Your task to perform on an android device: Check the news Image 0: 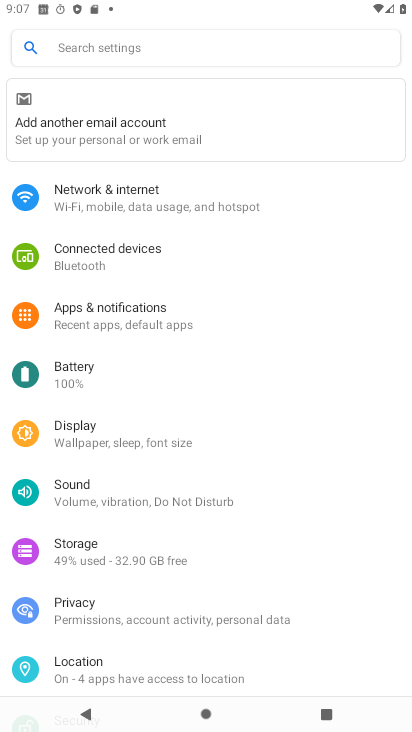
Step 0: press home button
Your task to perform on an android device: Check the news Image 1: 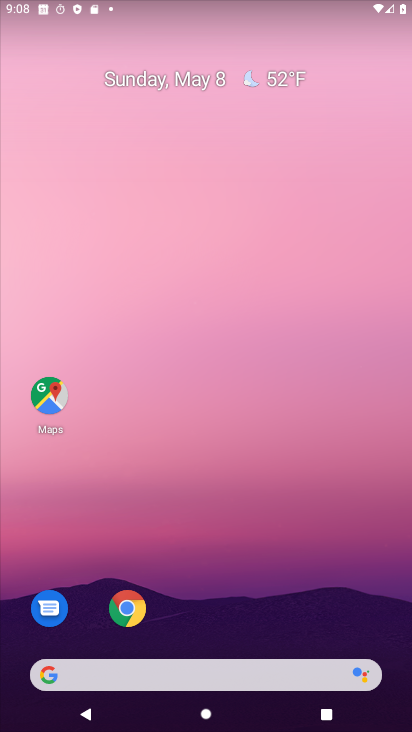
Step 1: drag from (223, 683) to (157, 117)
Your task to perform on an android device: Check the news Image 2: 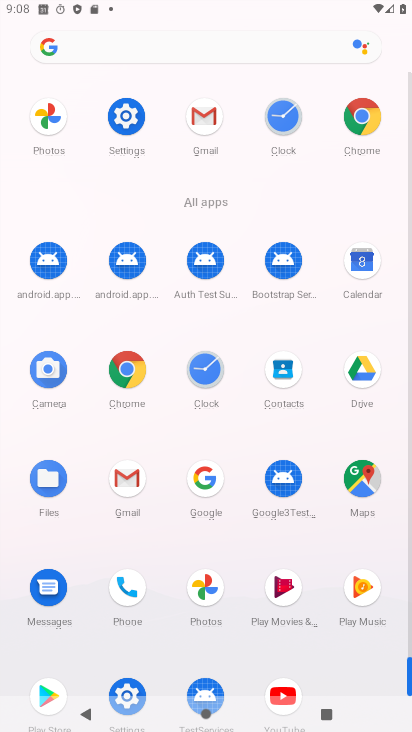
Step 2: click (106, 367)
Your task to perform on an android device: Check the news Image 3: 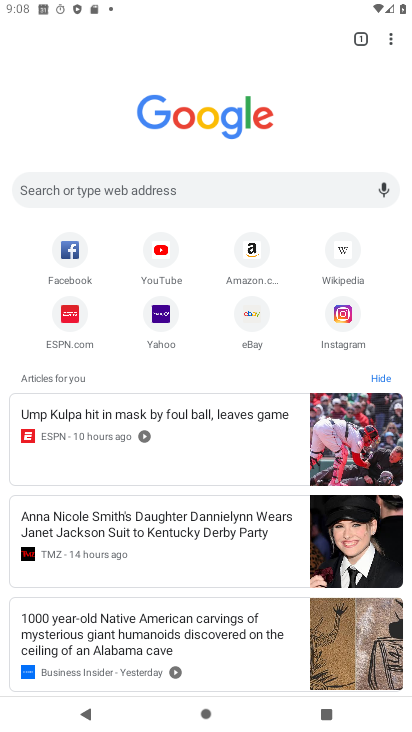
Step 3: click (161, 183)
Your task to perform on an android device: Check the news Image 4: 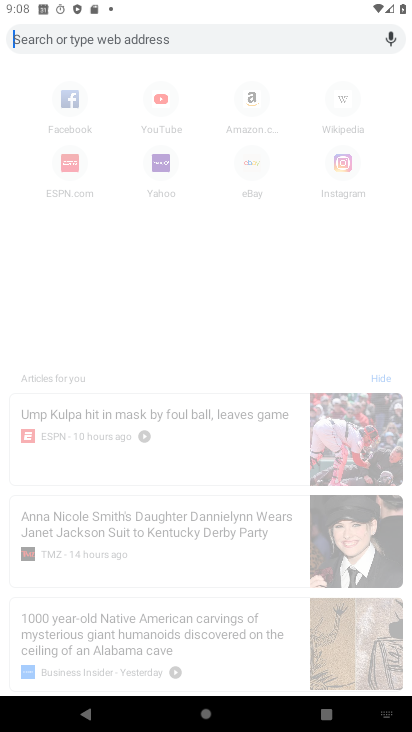
Step 4: type "check the news"
Your task to perform on an android device: Check the news Image 5: 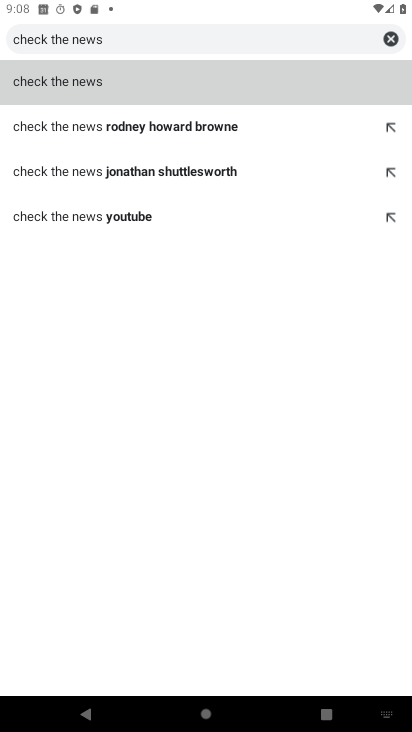
Step 5: click (116, 88)
Your task to perform on an android device: Check the news Image 6: 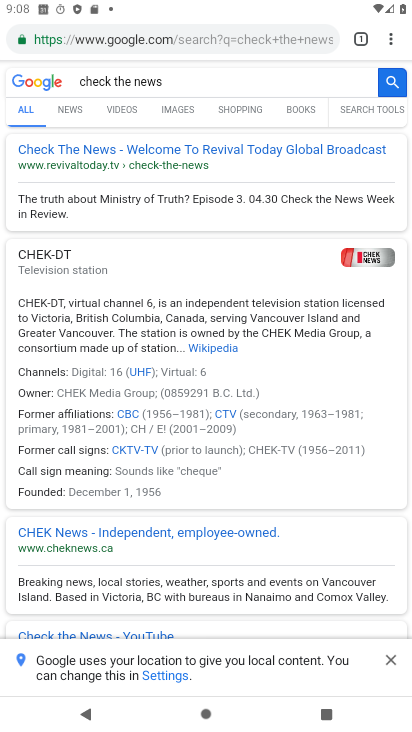
Step 6: task complete